Your task to perform on an android device: What is the recent news? Image 0: 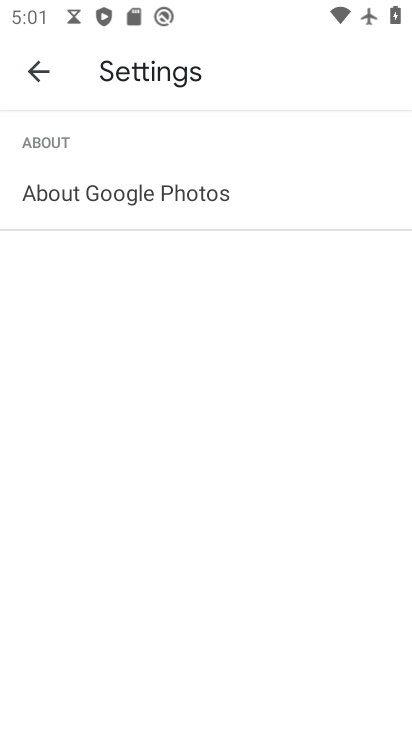
Step 0: drag from (372, 611) to (372, 445)
Your task to perform on an android device: What is the recent news? Image 1: 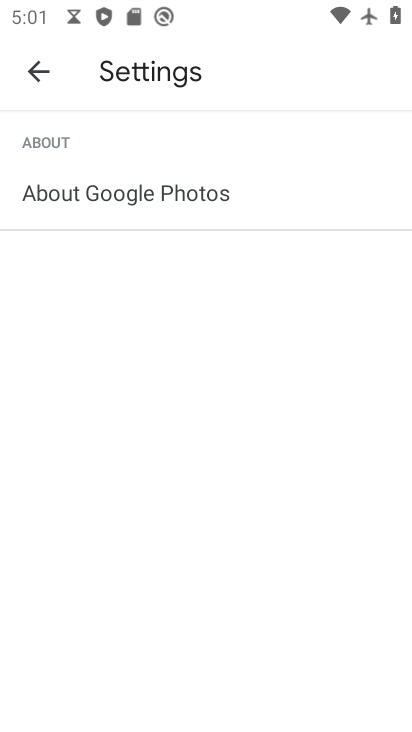
Step 1: press back button
Your task to perform on an android device: What is the recent news? Image 2: 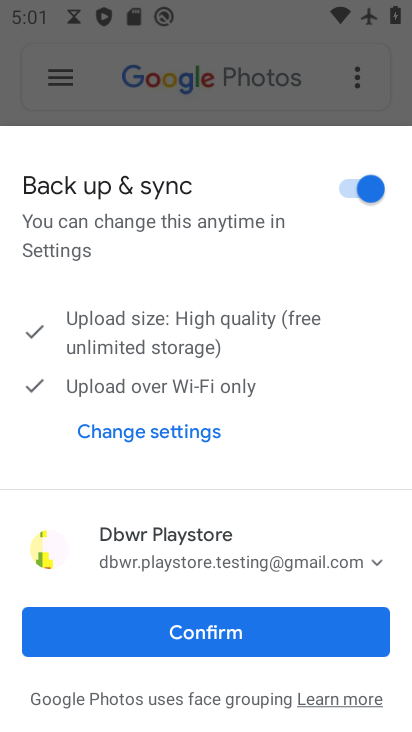
Step 2: click (226, 649)
Your task to perform on an android device: What is the recent news? Image 3: 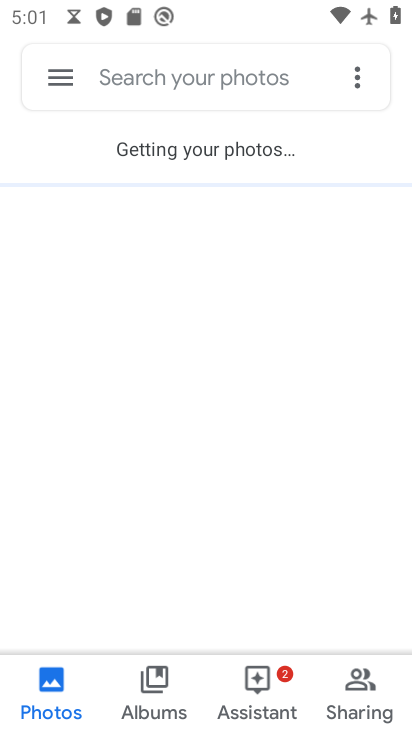
Step 3: click (48, 81)
Your task to perform on an android device: What is the recent news? Image 4: 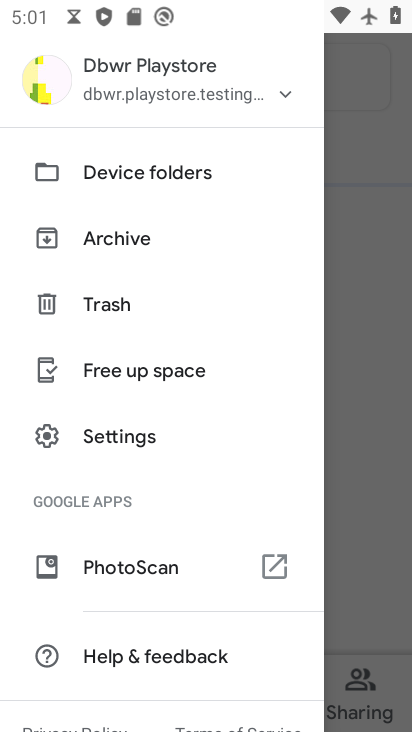
Step 4: press back button
Your task to perform on an android device: What is the recent news? Image 5: 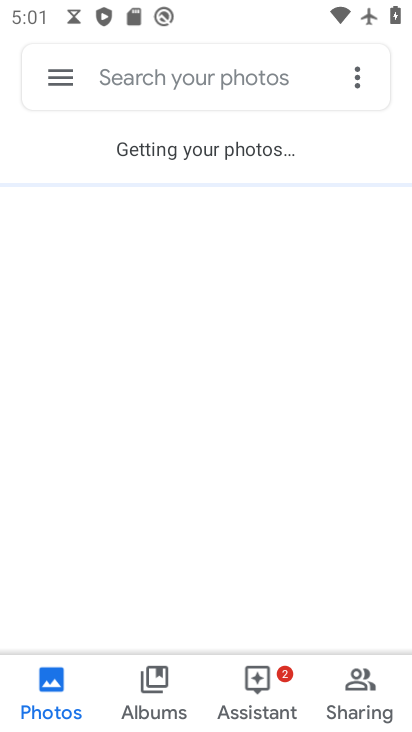
Step 5: press home button
Your task to perform on an android device: What is the recent news? Image 6: 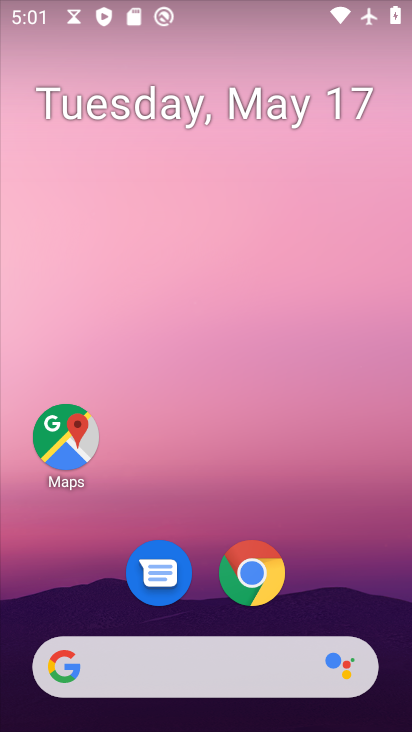
Step 6: drag from (4, 210) to (397, 329)
Your task to perform on an android device: What is the recent news? Image 7: 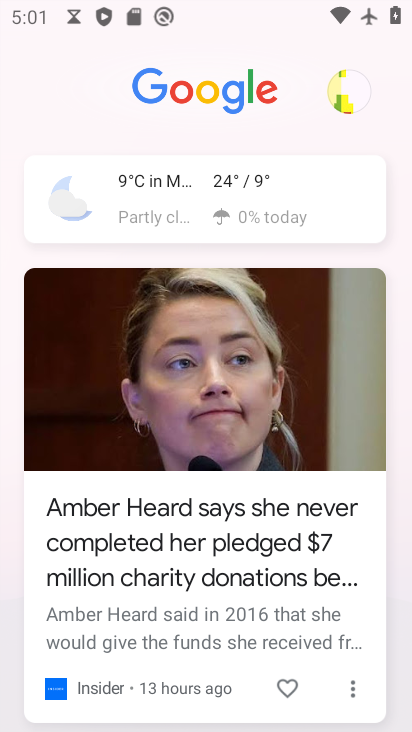
Step 7: click (56, 200)
Your task to perform on an android device: What is the recent news? Image 8: 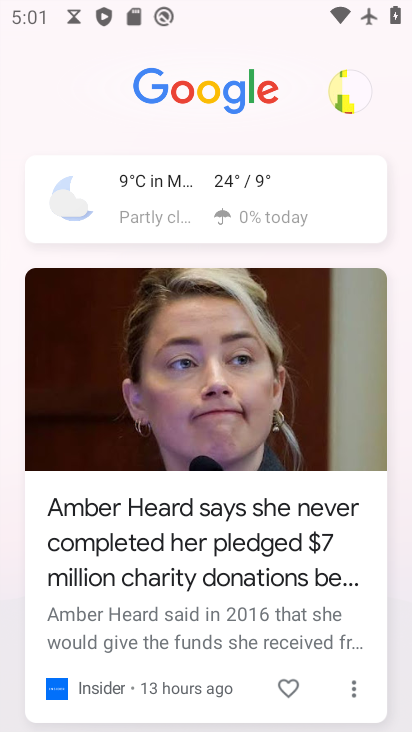
Step 8: click (155, 198)
Your task to perform on an android device: What is the recent news? Image 9: 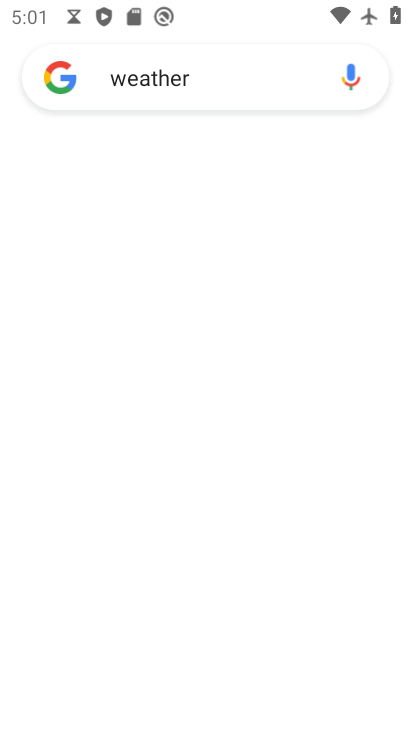
Step 9: click (157, 199)
Your task to perform on an android device: What is the recent news? Image 10: 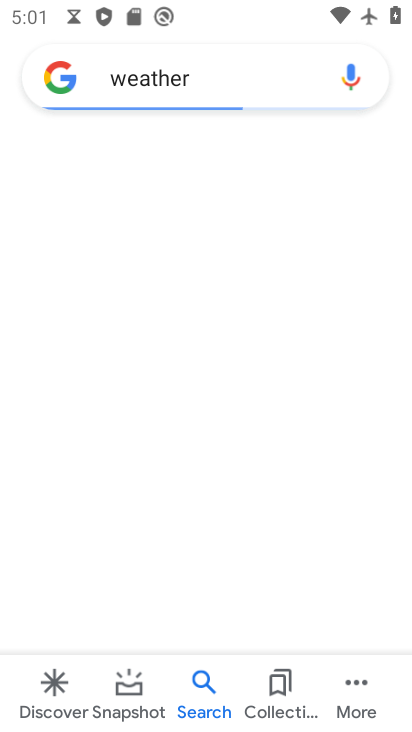
Step 10: click (157, 199)
Your task to perform on an android device: What is the recent news? Image 11: 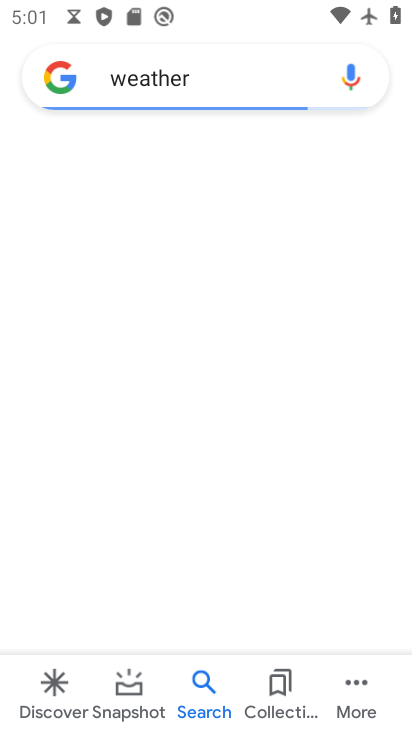
Step 11: click (158, 199)
Your task to perform on an android device: What is the recent news? Image 12: 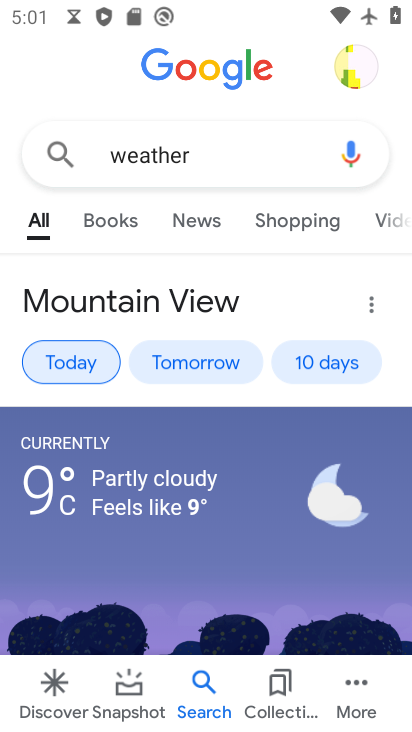
Step 12: drag from (227, 576) to (198, 215)
Your task to perform on an android device: What is the recent news? Image 13: 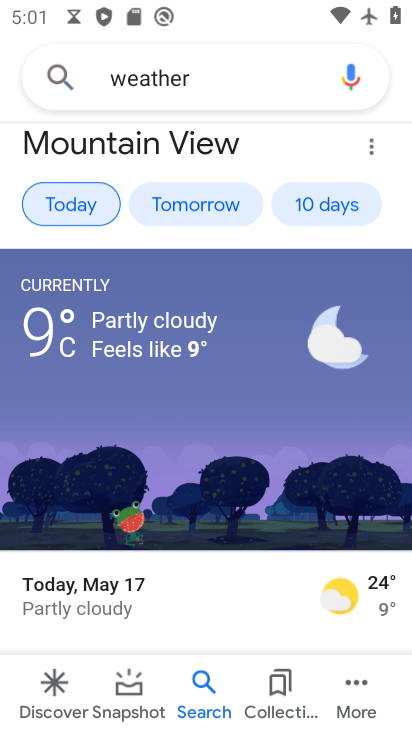
Step 13: drag from (202, 421) to (146, 74)
Your task to perform on an android device: What is the recent news? Image 14: 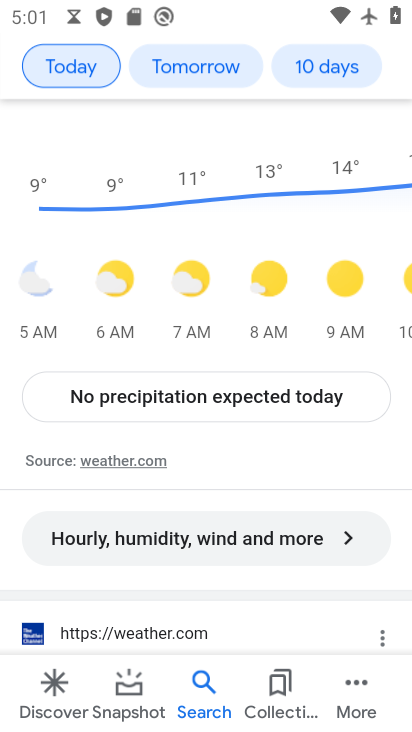
Step 14: drag from (93, 397) to (132, 47)
Your task to perform on an android device: What is the recent news? Image 15: 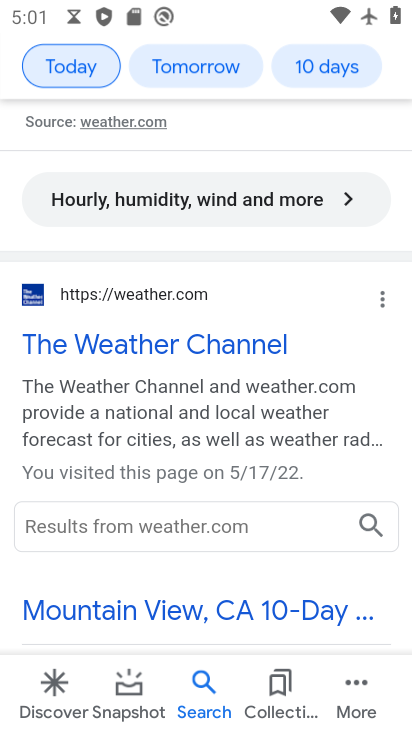
Step 15: drag from (112, 284) to (210, 690)
Your task to perform on an android device: What is the recent news? Image 16: 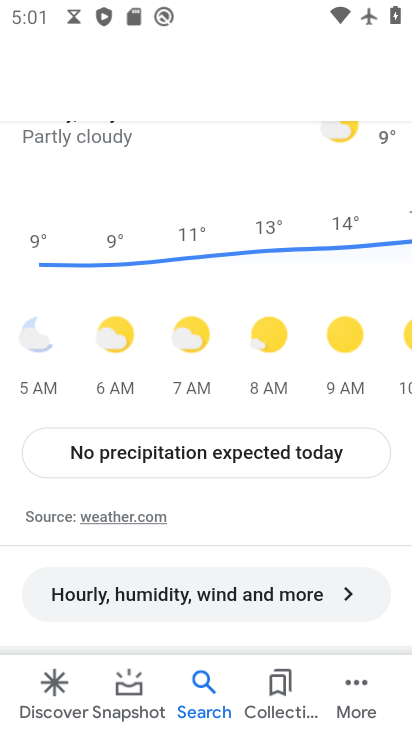
Step 16: drag from (170, 354) to (232, 574)
Your task to perform on an android device: What is the recent news? Image 17: 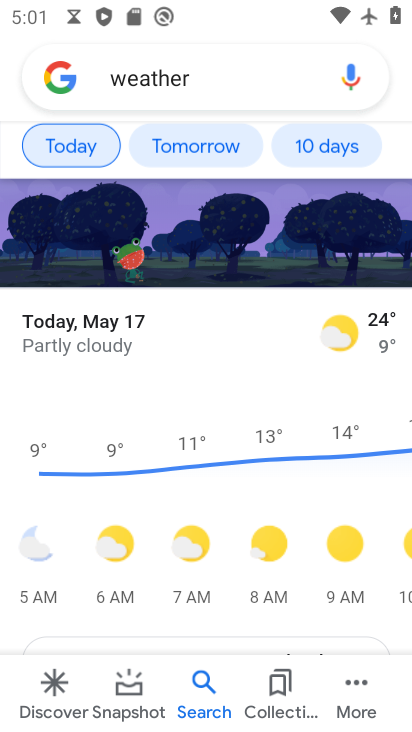
Step 17: drag from (215, 369) to (302, 635)
Your task to perform on an android device: What is the recent news? Image 18: 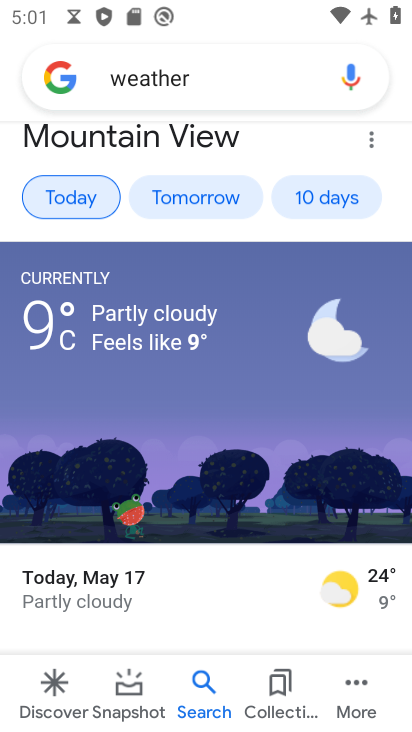
Step 18: drag from (194, 324) to (280, 626)
Your task to perform on an android device: What is the recent news? Image 19: 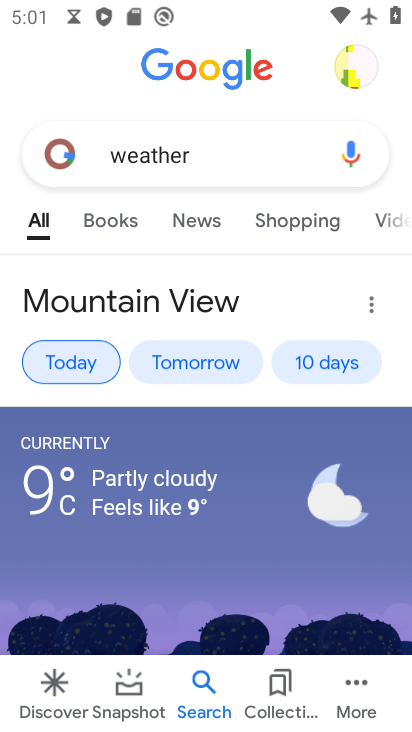
Step 19: drag from (170, 272) to (290, 671)
Your task to perform on an android device: What is the recent news? Image 20: 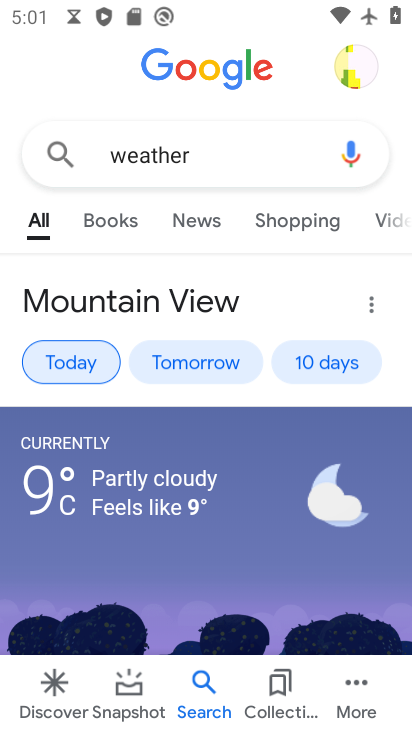
Step 20: click (205, 151)
Your task to perform on an android device: What is the recent news? Image 21: 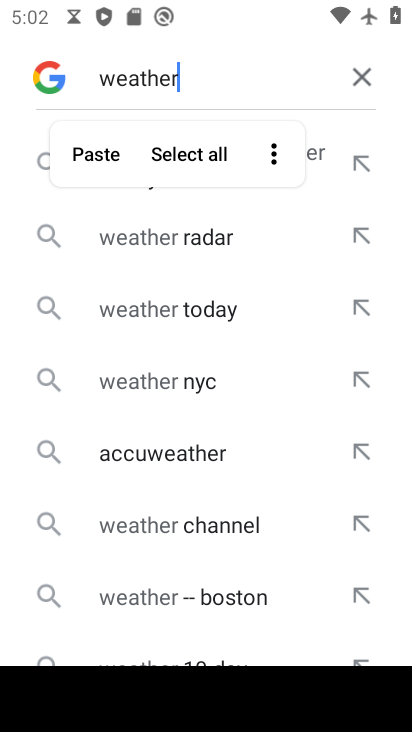
Step 21: click (353, 67)
Your task to perform on an android device: What is the recent news? Image 22: 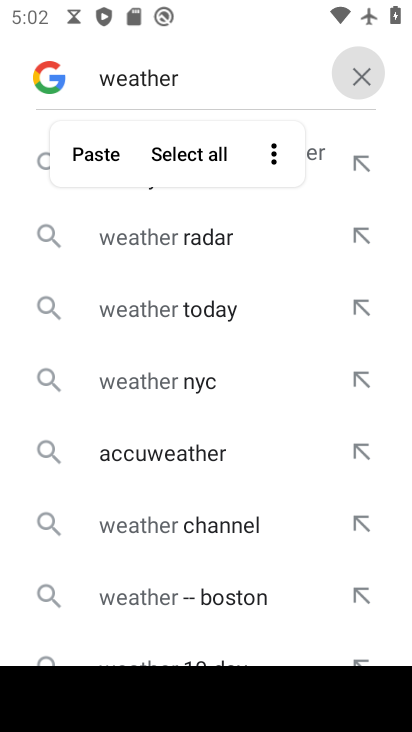
Step 22: click (354, 67)
Your task to perform on an android device: What is the recent news? Image 23: 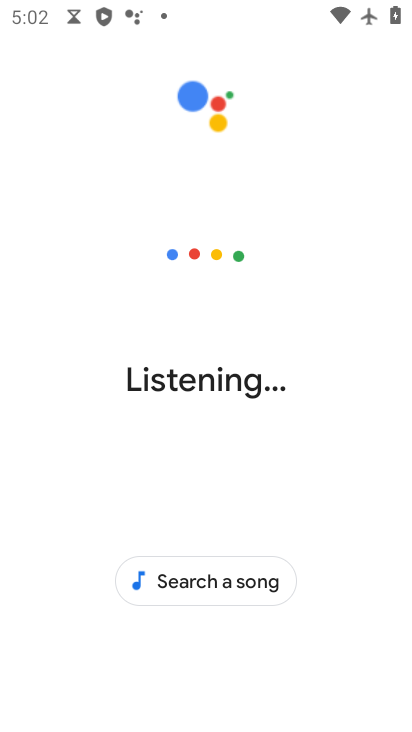
Step 23: task complete